Your task to perform on an android device: Turn off the flashlight Image 0: 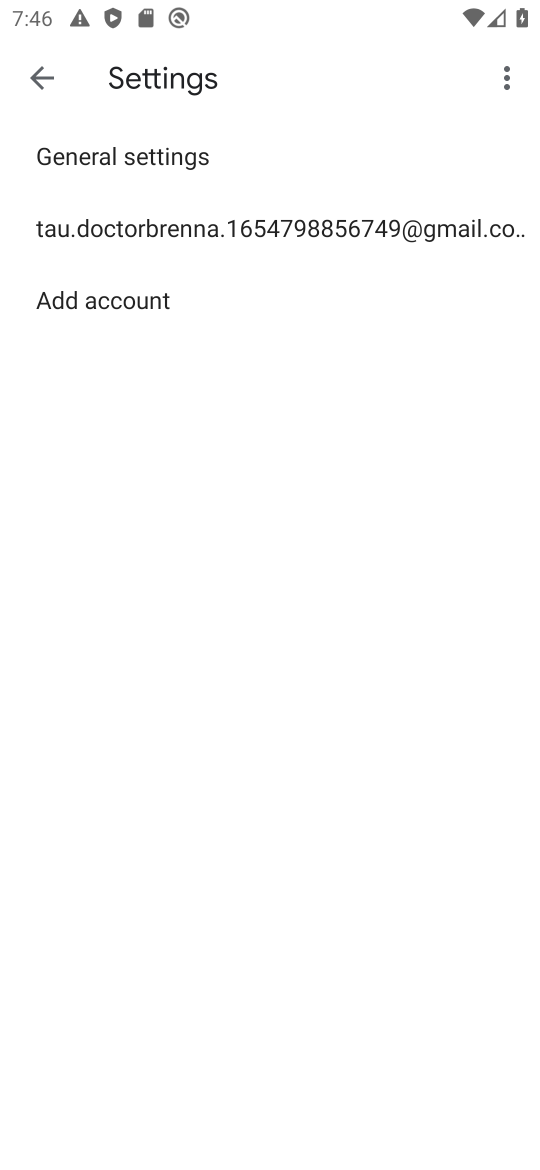
Step 0: press home button
Your task to perform on an android device: Turn off the flashlight Image 1: 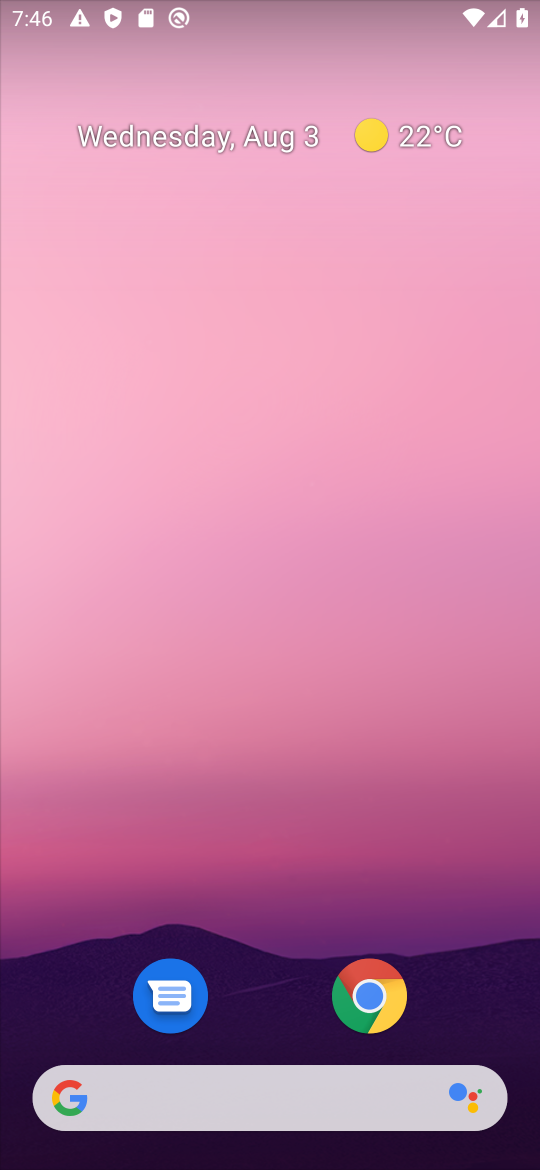
Step 1: drag from (268, 959) to (342, 40)
Your task to perform on an android device: Turn off the flashlight Image 2: 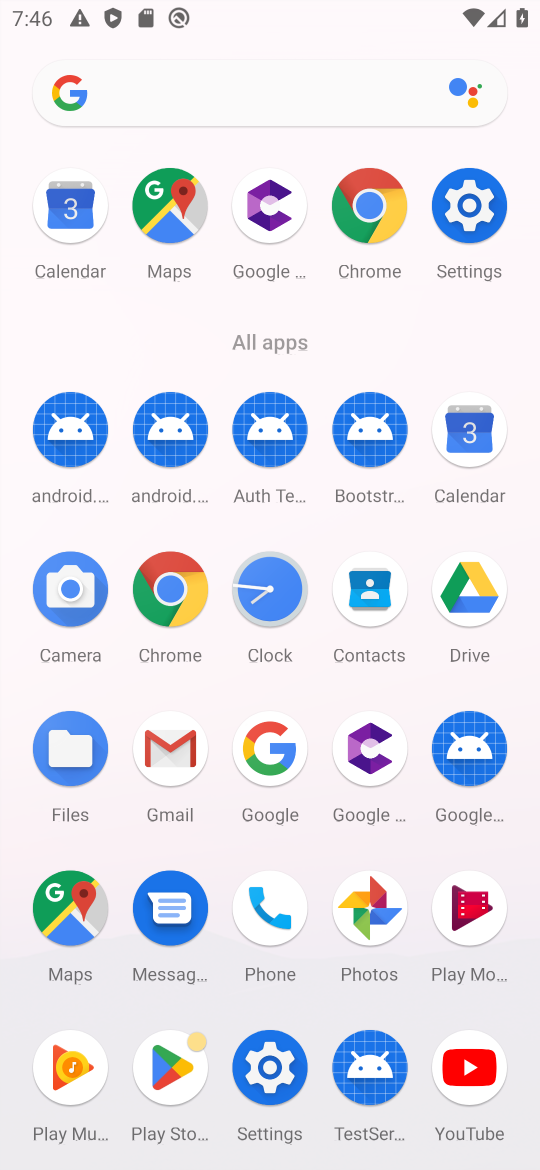
Step 2: click (479, 309)
Your task to perform on an android device: Turn off the flashlight Image 3: 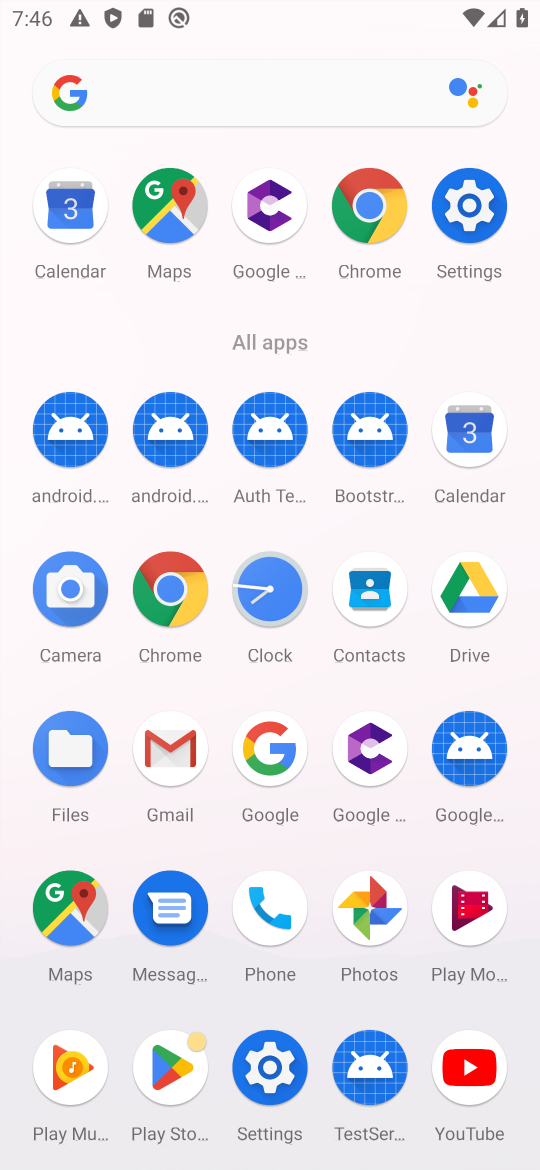
Step 3: click (470, 221)
Your task to perform on an android device: Turn off the flashlight Image 4: 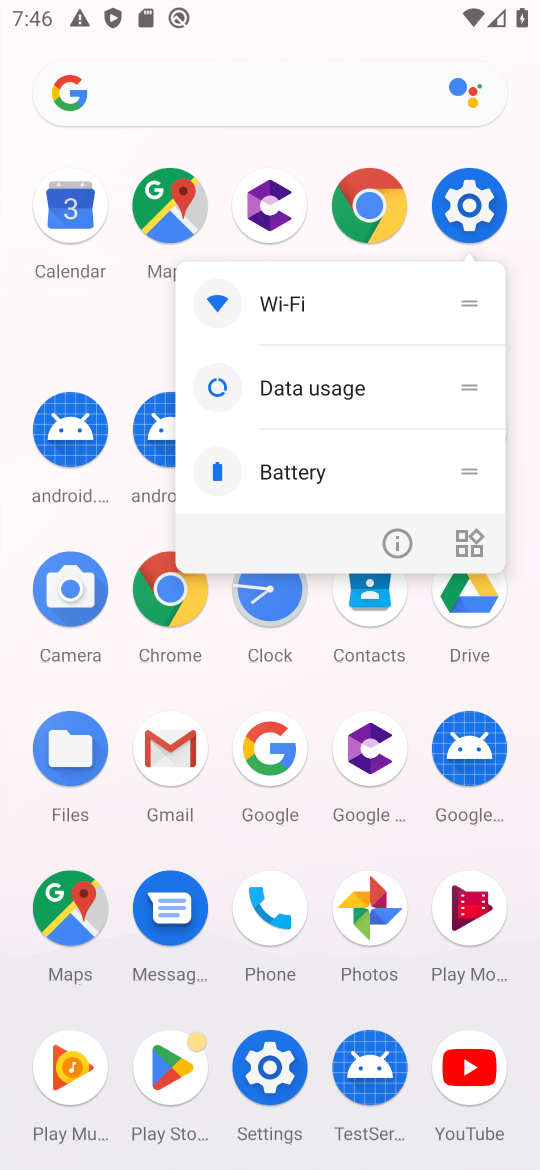
Step 4: click (475, 213)
Your task to perform on an android device: Turn off the flashlight Image 5: 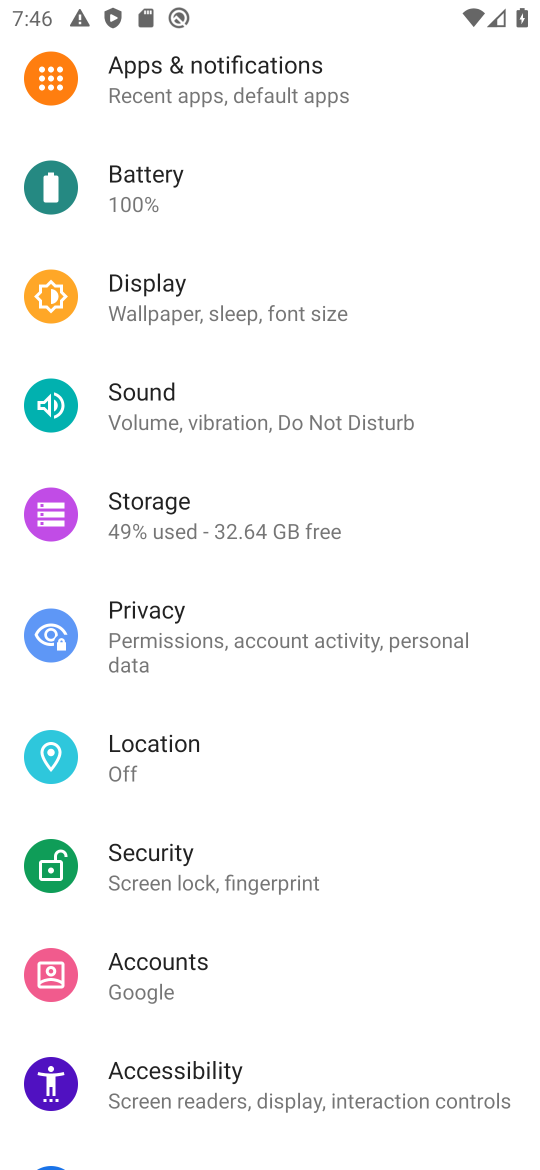
Step 5: drag from (256, 178) to (200, 847)
Your task to perform on an android device: Turn off the flashlight Image 6: 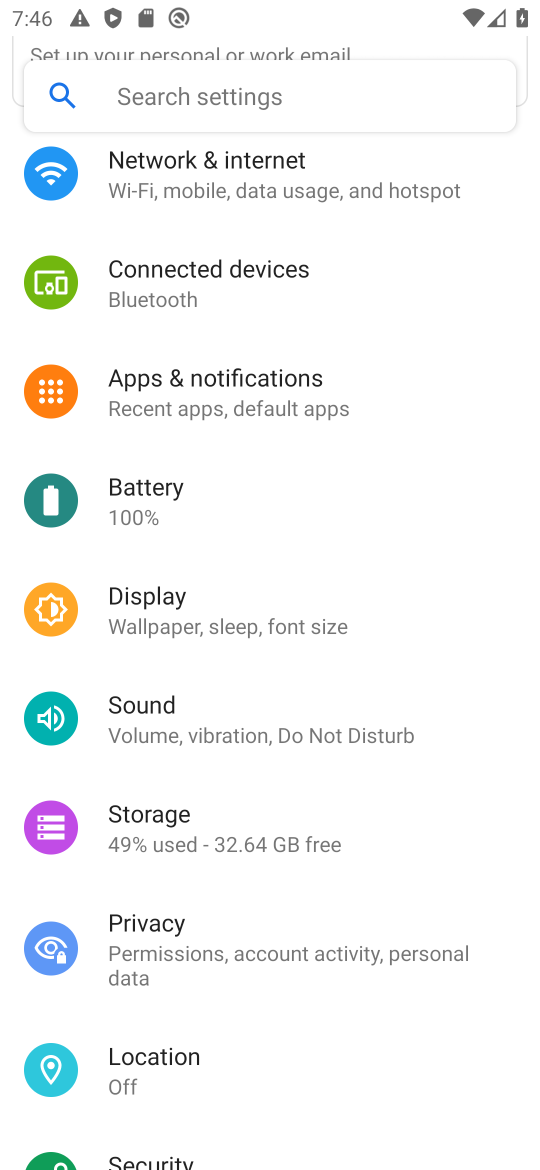
Step 6: click (229, 86)
Your task to perform on an android device: Turn off the flashlight Image 7: 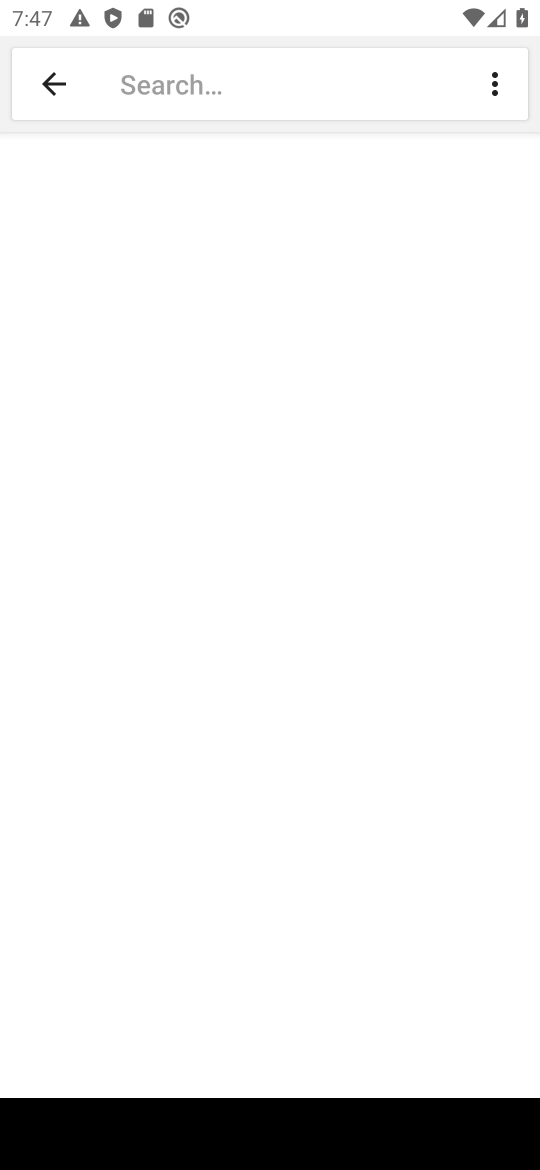
Step 7: type "flashlight"
Your task to perform on an android device: Turn off the flashlight Image 8: 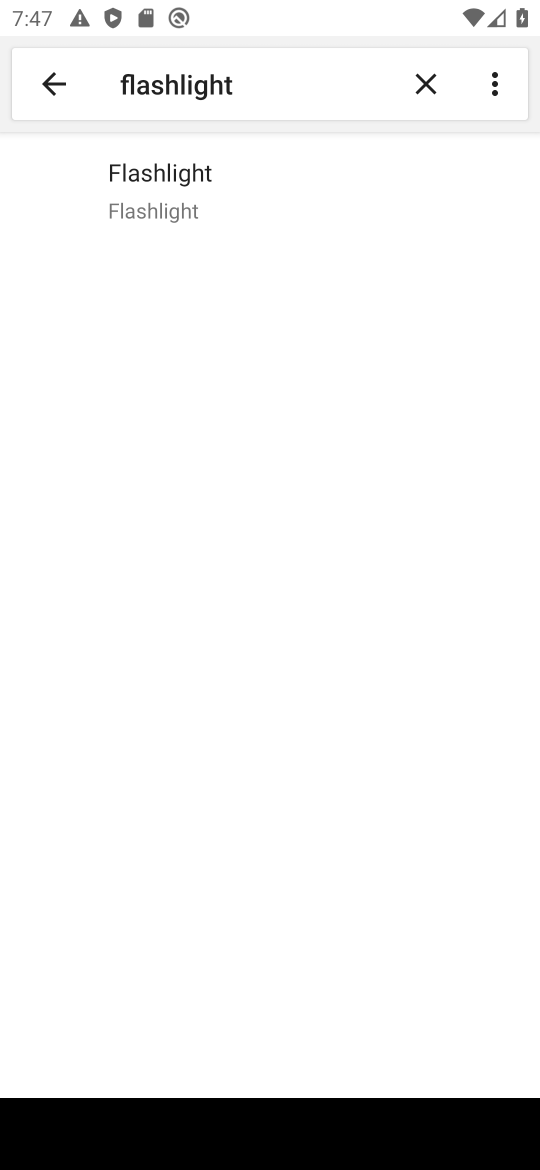
Step 8: click (320, 201)
Your task to perform on an android device: Turn off the flashlight Image 9: 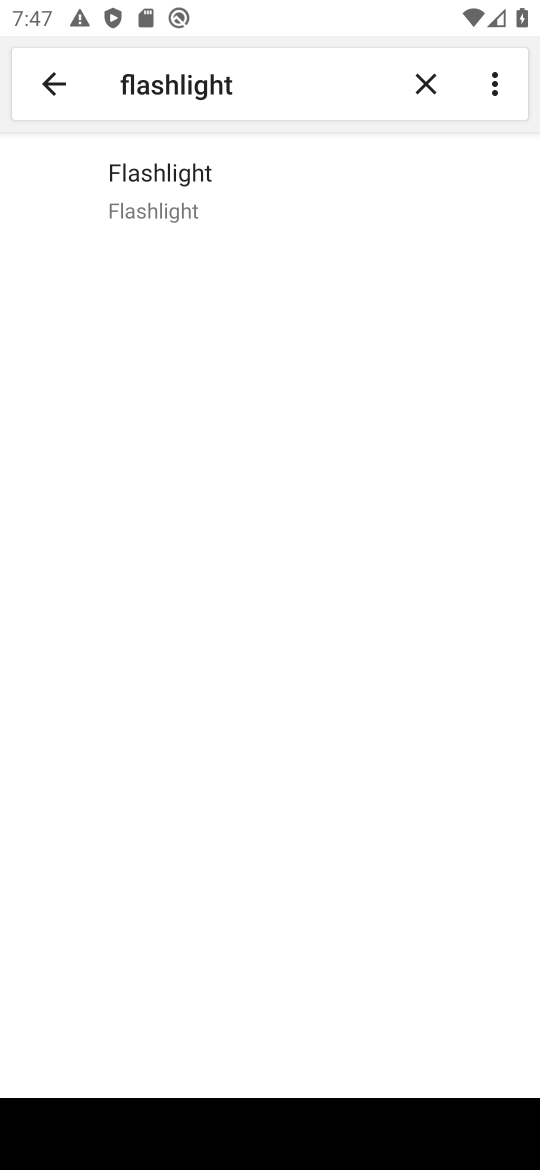
Step 9: task complete